Your task to perform on an android device: Go to Wikipedia Image 0: 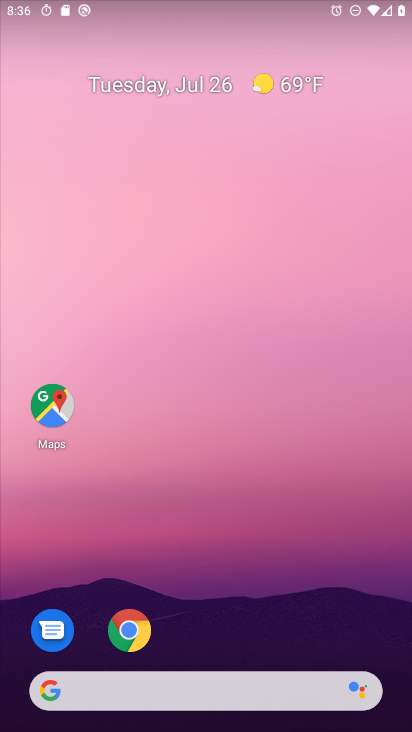
Step 0: drag from (279, 577) to (221, 184)
Your task to perform on an android device: Go to Wikipedia Image 1: 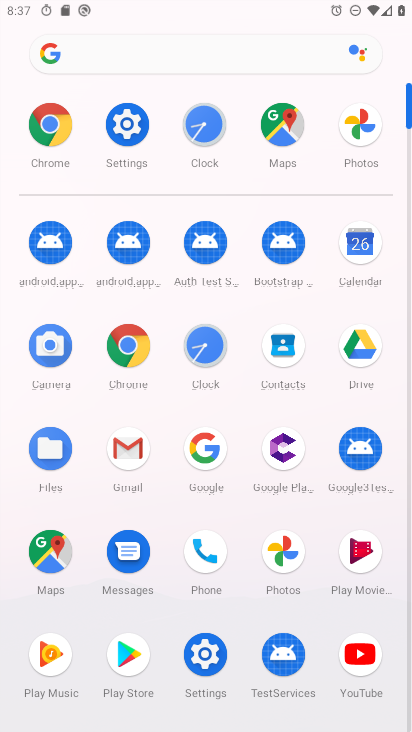
Step 1: click (121, 364)
Your task to perform on an android device: Go to Wikipedia Image 2: 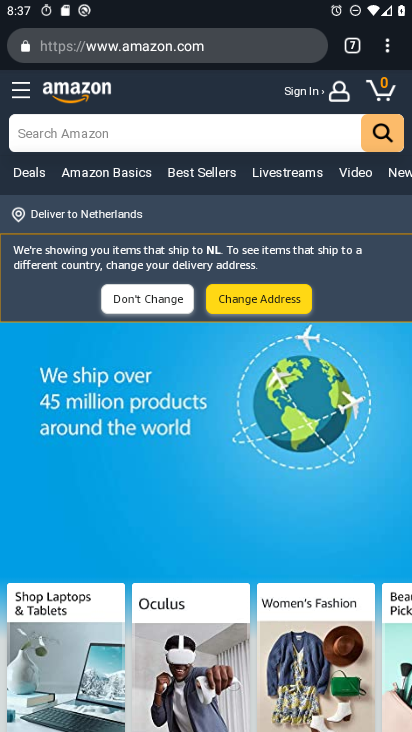
Step 2: click (349, 42)
Your task to perform on an android device: Go to Wikipedia Image 3: 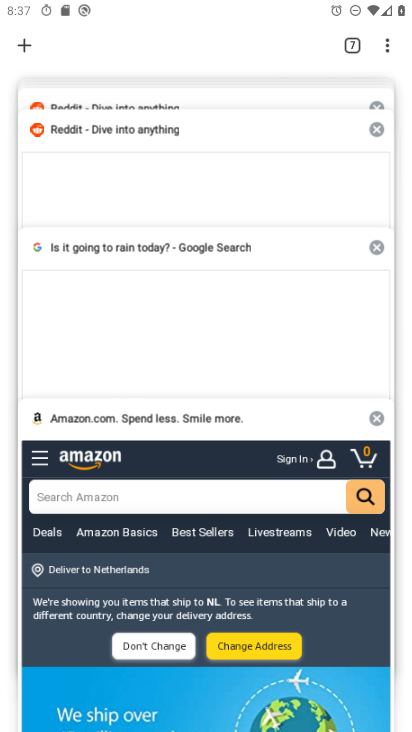
Step 3: drag from (200, 239) to (194, 607)
Your task to perform on an android device: Go to Wikipedia Image 4: 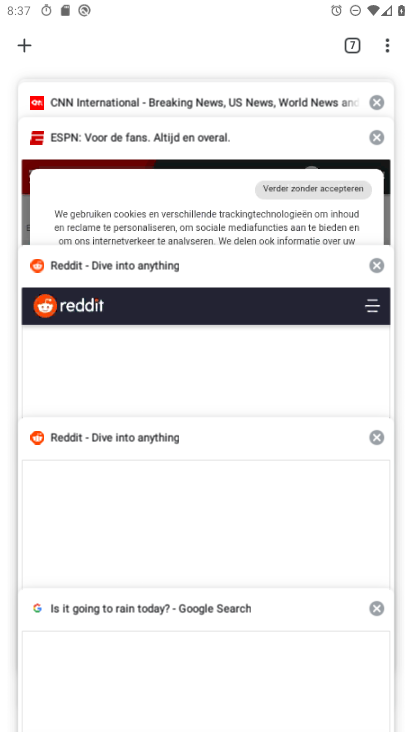
Step 4: drag from (196, 239) to (177, 664)
Your task to perform on an android device: Go to Wikipedia Image 5: 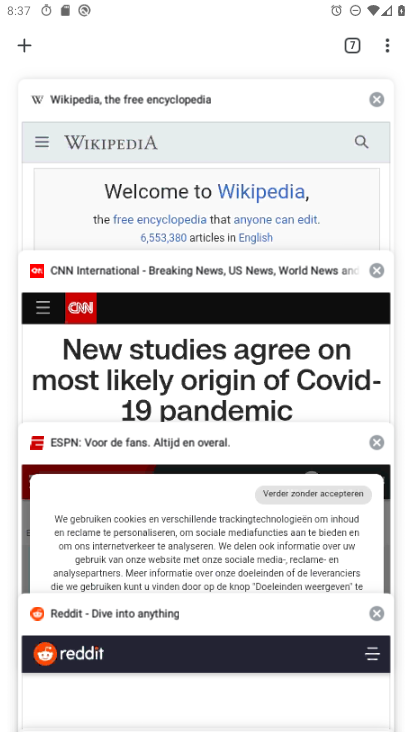
Step 5: click (152, 184)
Your task to perform on an android device: Go to Wikipedia Image 6: 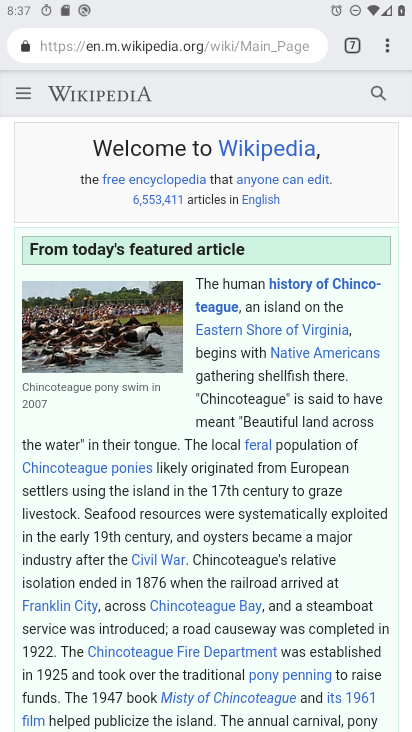
Step 6: task complete